Your task to perform on an android device: Open Maps and search for coffee Image 0: 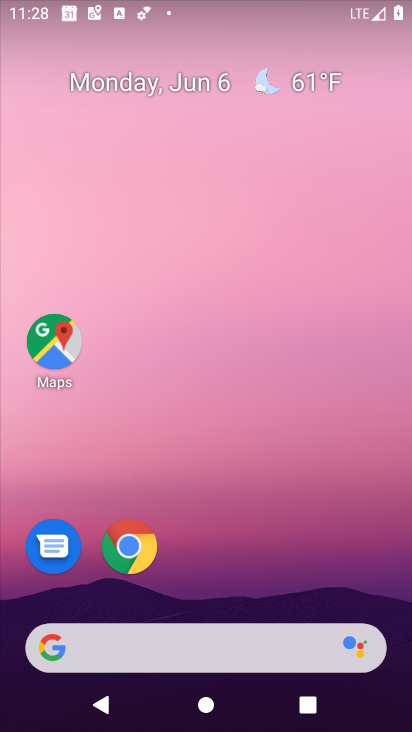
Step 0: click (56, 342)
Your task to perform on an android device: Open Maps and search for coffee Image 1: 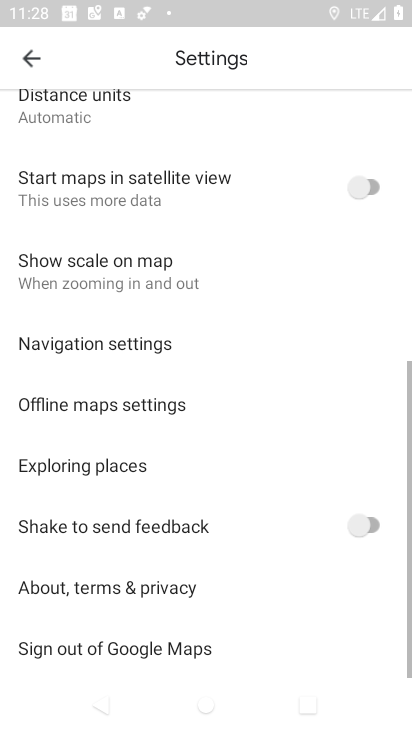
Step 1: press back button
Your task to perform on an android device: Open Maps and search for coffee Image 2: 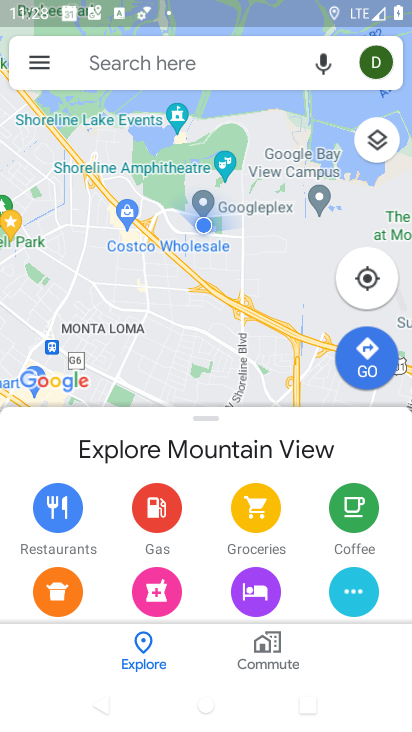
Step 2: click (178, 58)
Your task to perform on an android device: Open Maps and search for coffee Image 3: 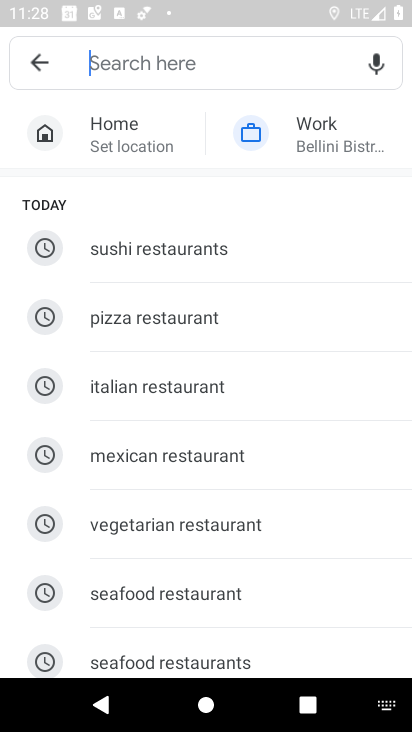
Step 3: type "coffee"
Your task to perform on an android device: Open Maps and search for coffee Image 4: 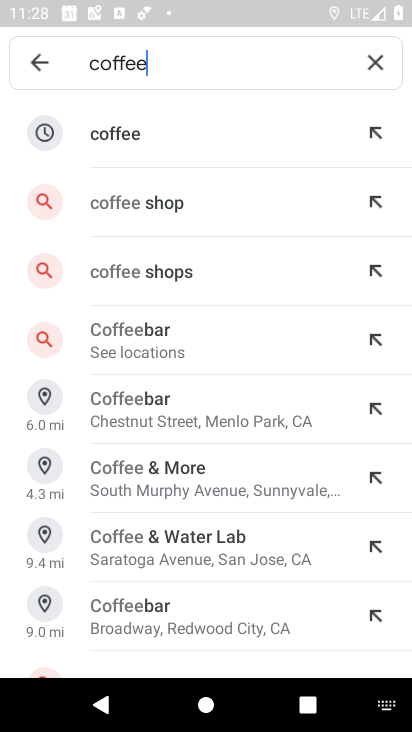
Step 4: click (127, 136)
Your task to perform on an android device: Open Maps and search for coffee Image 5: 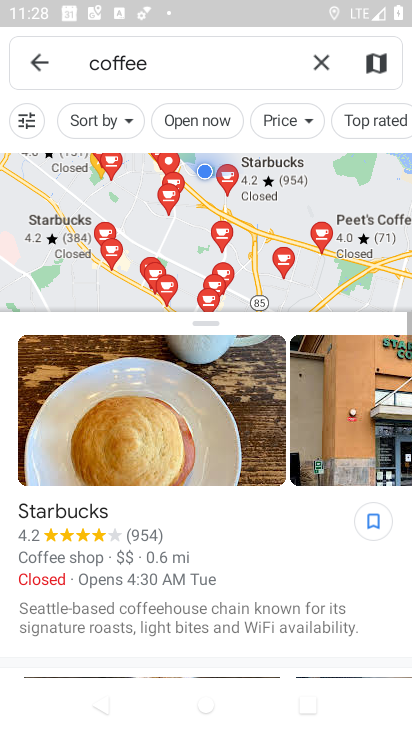
Step 5: task complete